Your task to perform on an android device: Open wifi settings Image 0: 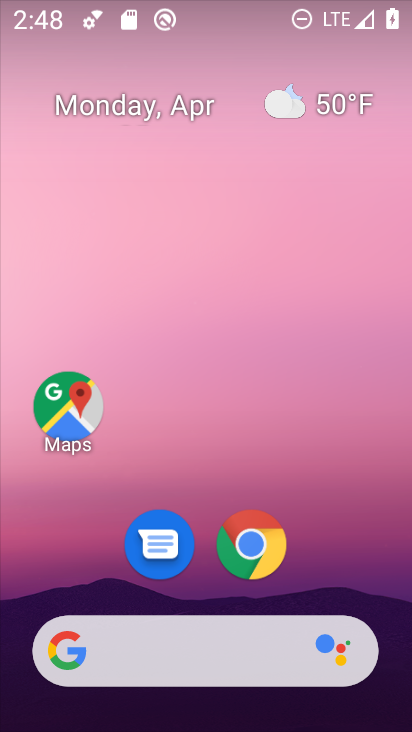
Step 0: drag from (317, 563) to (212, 103)
Your task to perform on an android device: Open wifi settings Image 1: 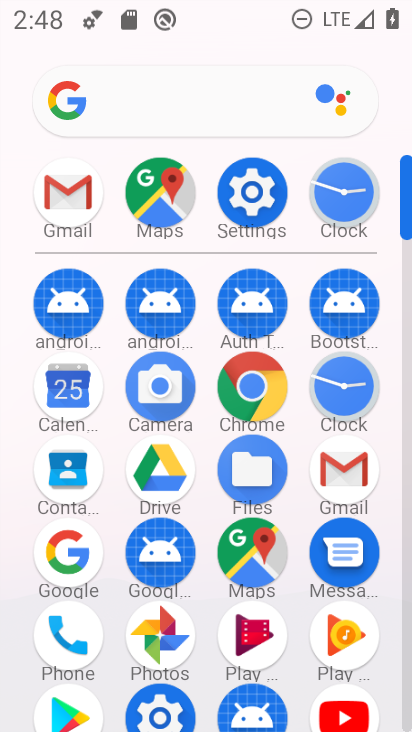
Step 1: click (252, 184)
Your task to perform on an android device: Open wifi settings Image 2: 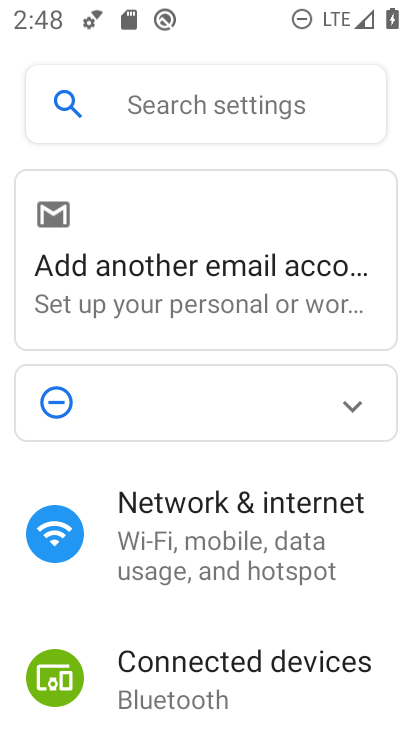
Step 2: click (196, 542)
Your task to perform on an android device: Open wifi settings Image 3: 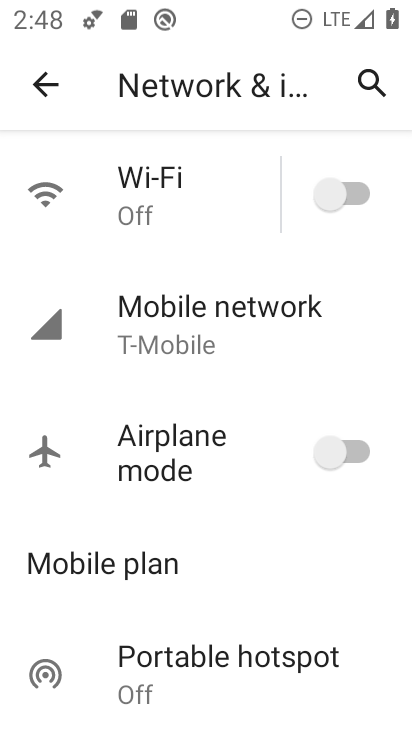
Step 3: click (154, 182)
Your task to perform on an android device: Open wifi settings Image 4: 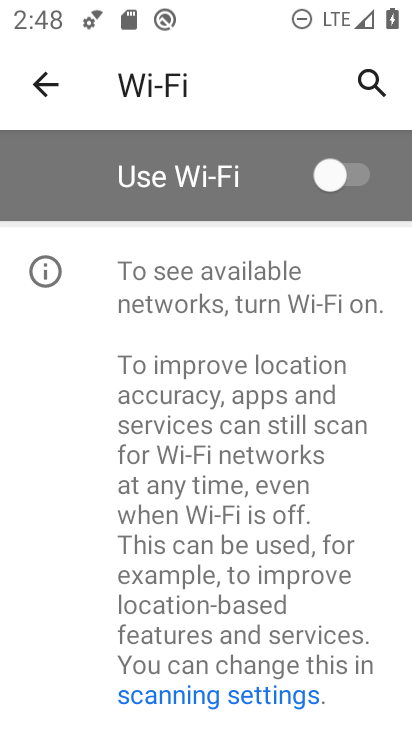
Step 4: task complete